Your task to perform on an android device: Open calendar and show me the fourth week of next month Image 0: 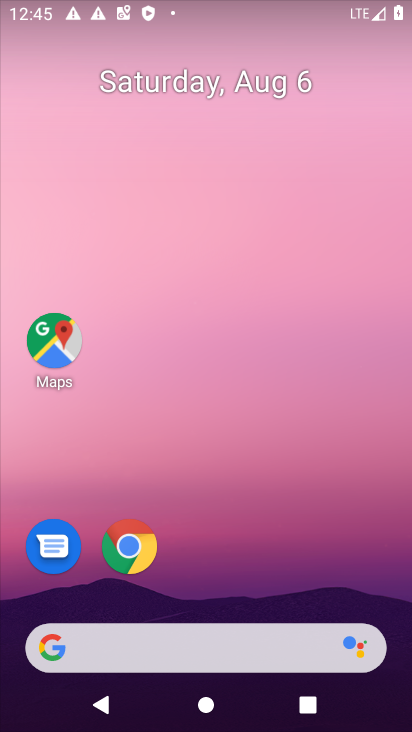
Step 0: drag from (380, 583) to (352, 95)
Your task to perform on an android device: Open calendar and show me the fourth week of next month Image 1: 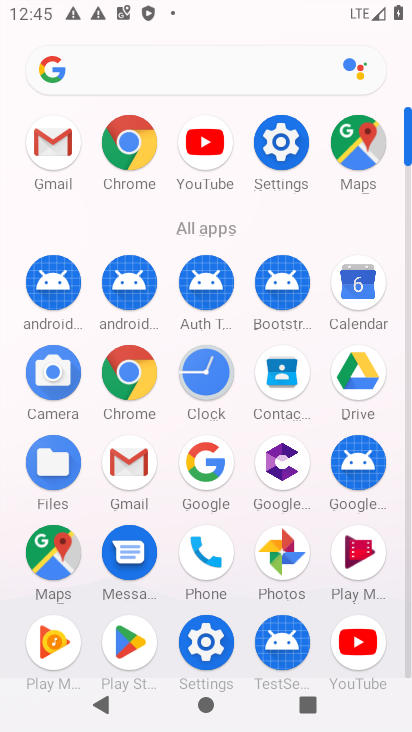
Step 1: click (355, 281)
Your task to perform on an android device: Open calendar and show me the fourth week of next month Image 2: 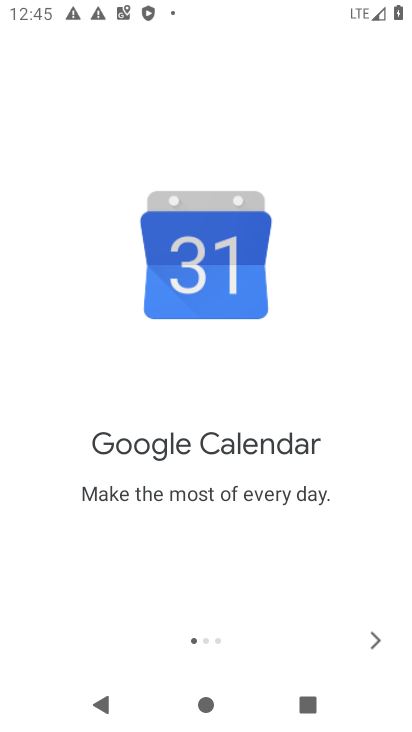
Step 2: click (372, 639)
Your task to perform on an android device: Open calendar and show me the fourth week of next month Image 3: 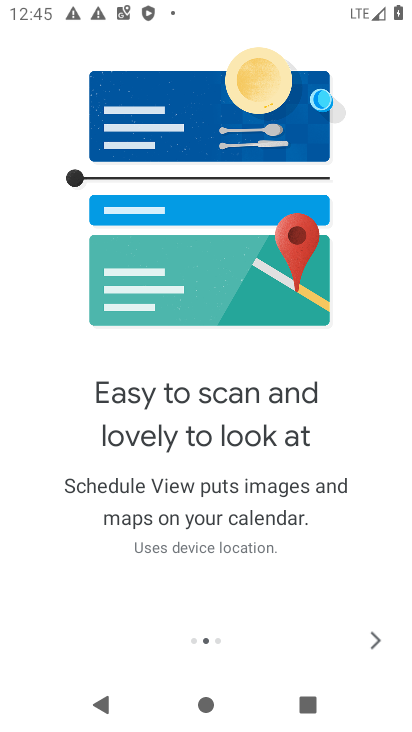
Step 3: click (372, 639)
Your task to perform on an android device: Open calendar and show me the fourth week of next month Image 4: 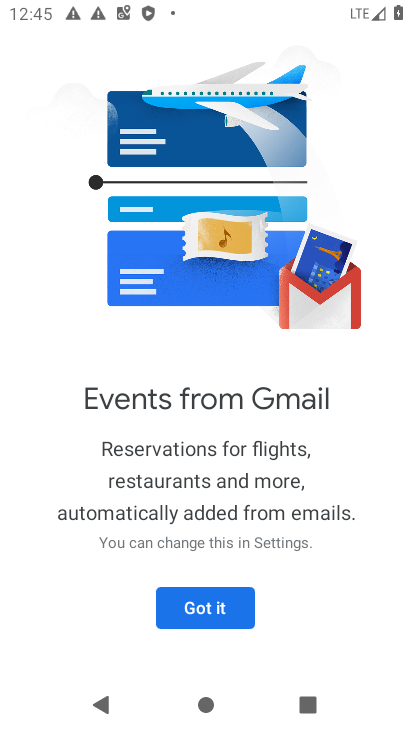
Step 4: click (201, 609)
Your task to perform on an android device: Open calendar and show me the fourth week of next month Image 5: 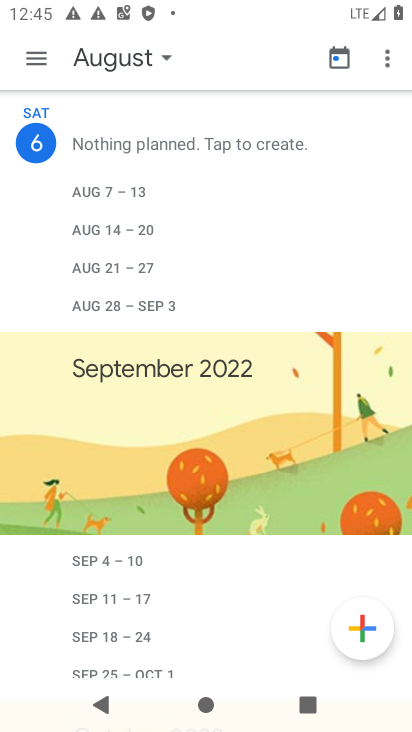
Step 5: click (33, 56)
Your task to perform on an android device: Open calendar and show me the fourth week of next month Image 6: 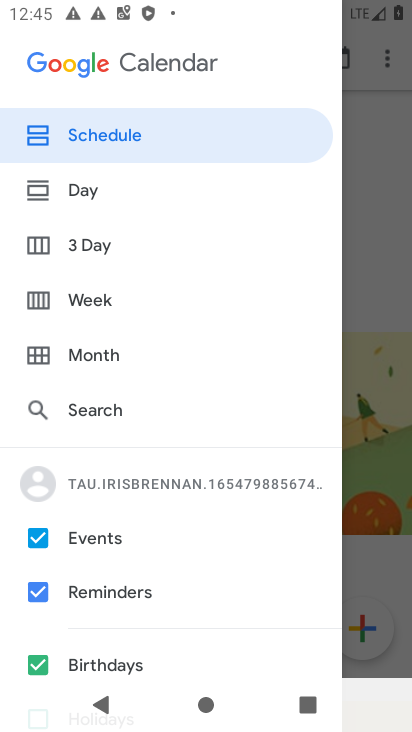
Step 6: click (85, 295)
Your task to perform on an android device: Open calendar and show me the fourth week of next month Image 7: 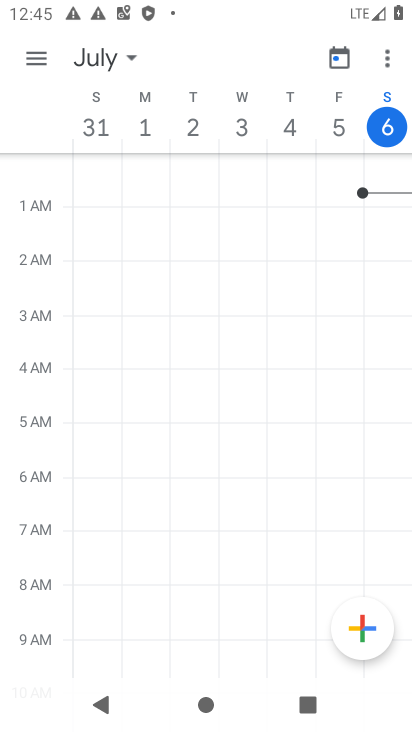
Step 7: click (132, 58)
Your task to perform on an android device: Open calendar and show me the fourth week of next month Image 8: 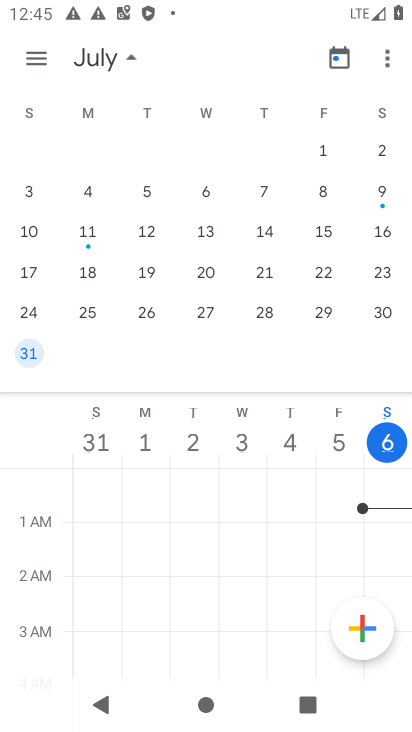
Step 8: drag from (367, 272) to (37, 244)
Your task to perform on an android device: Open calendar and show me the fourth week of next month Image 9: 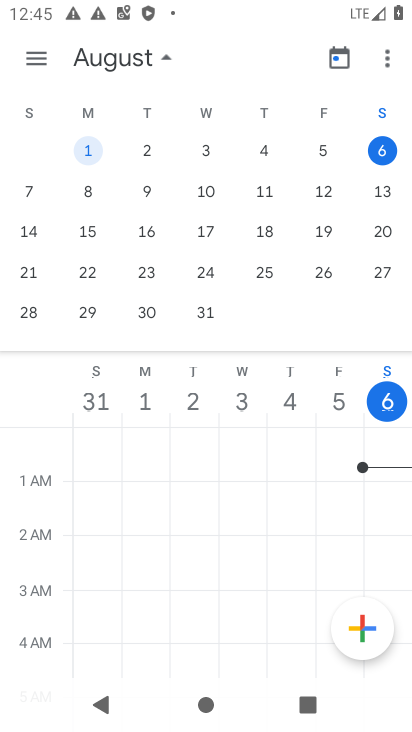
Step 9: drag from (383, 235) to (6, 228)
Your task to perform on an android device: Open calendar and show me the fourth week of next month Image 10: 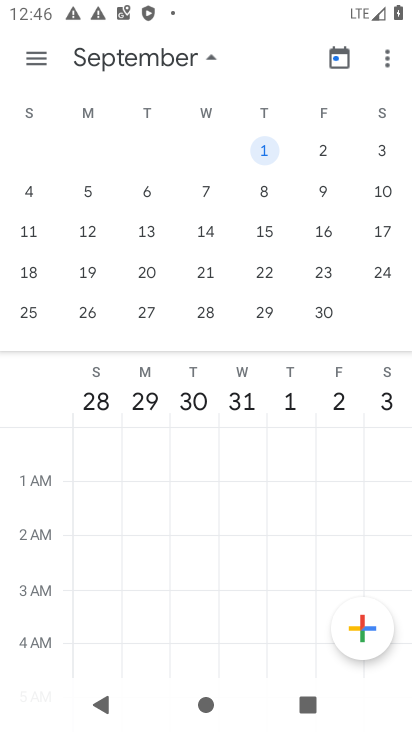
Step 10: click (23, 311)
Your task to perform on an android device: Open calendar and show me the fourth week of next month Image 11: 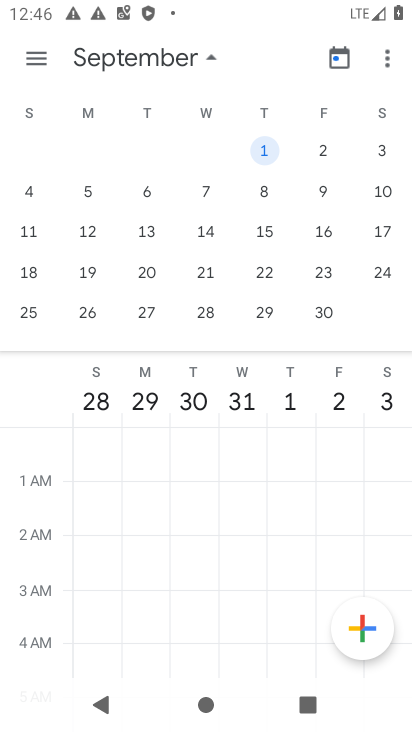
Step 11: click (23, 300)
Your task to perform on an android device: Open calendar and show me the fourth week of next month Image 12: 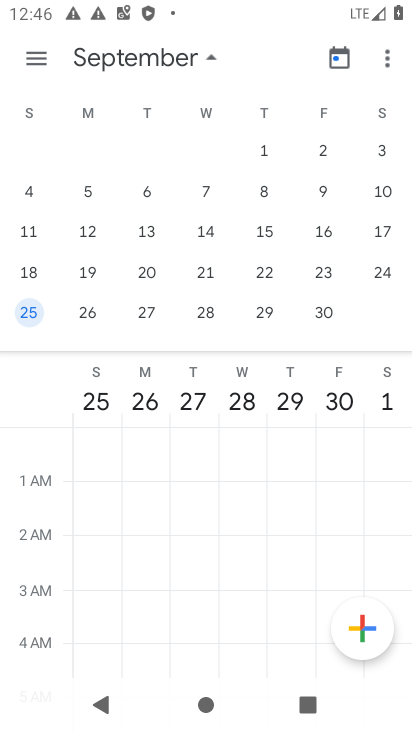
Step 12: task complete